Your task to perform on an android device: Show me recent news Image 0: 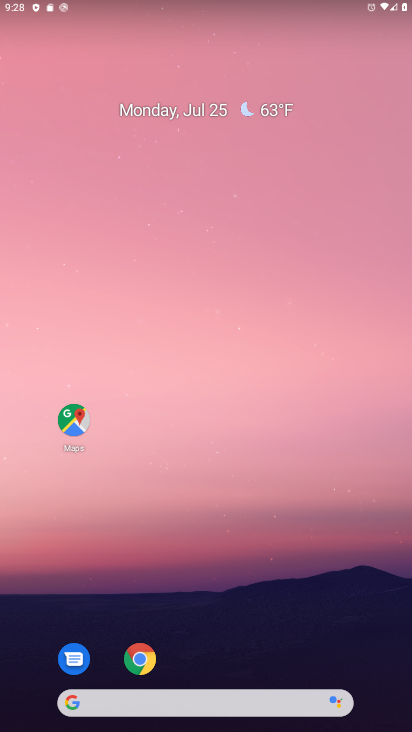
Step 0: drag from (7, 235) to (359, 251)
Your task to perform on an android device: Show me recent news Image 1: 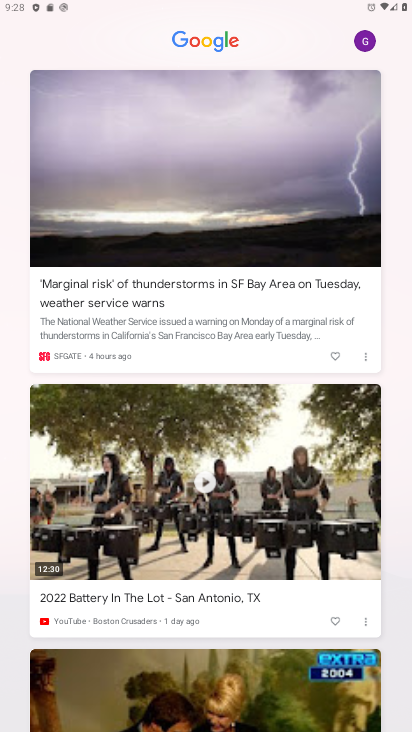
Step 1: task complete